Your task to perform on an android device: Open Chrome and go to settings Image 0: 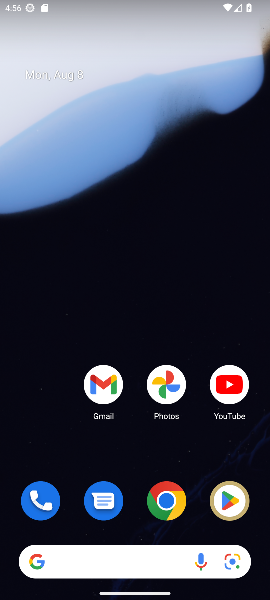
Step 0: click (169, 397)
Your task to perform on an android device: Open Chrome and go to settings Image 1: 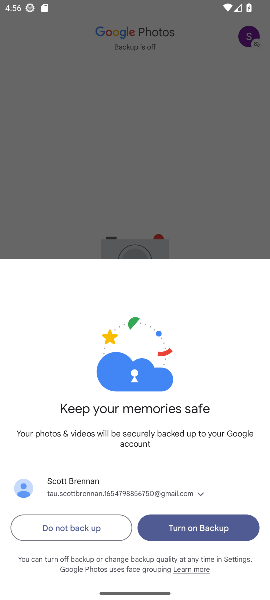
Step 1: click (75, 522)
Your task to perform on an android device: Open Chrome and go to settings Image 2: 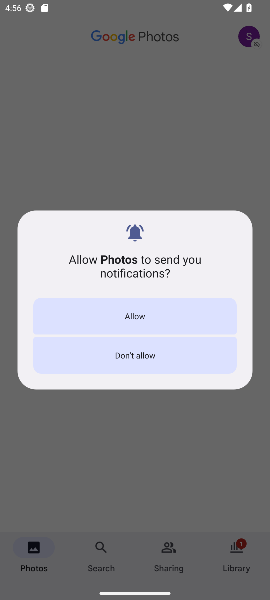
Step 2: press home button
Your task to perform on an android device: Open Chrome and go to settings Image 3: 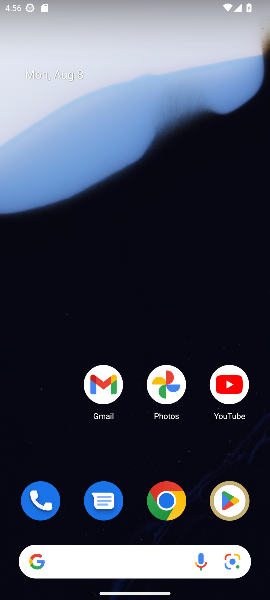
Step 3: click (168, 505)
Your task to perform on an android device: Open Chrome and go to settings Image 4: 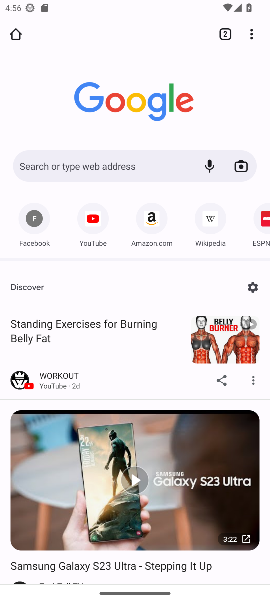
Step 4: click (252, 29)
Your task to perform on an android device: Open Chrome and go to settings Image 5: 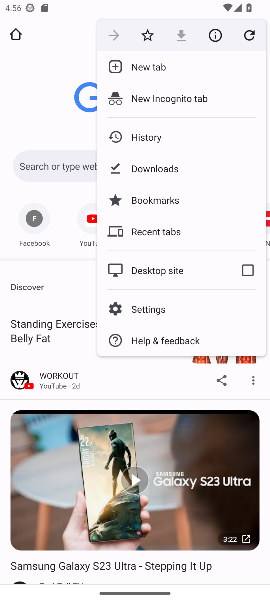
Step 5: click (140, 311)
Your task to perform on an android device: Open Chrome and go to settings Image 6: 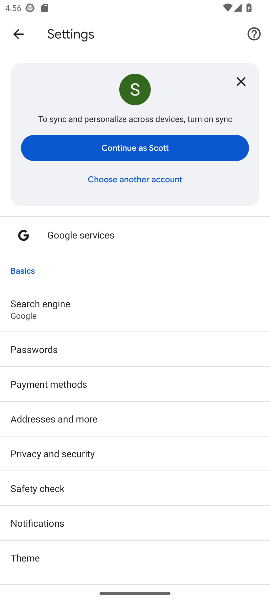
Step 6: task complete